Your task to perform on an android device: Open my contact list Image 0: 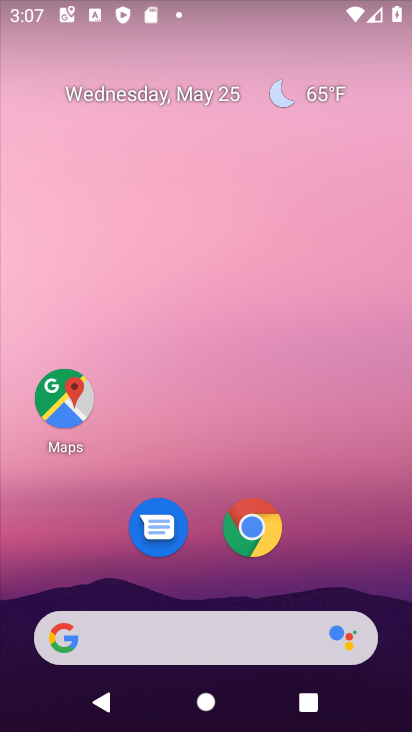
Step 0: drag from (174, 617) to (204, 93)
Your task to perform on an android device: Open my contact list Image 1: 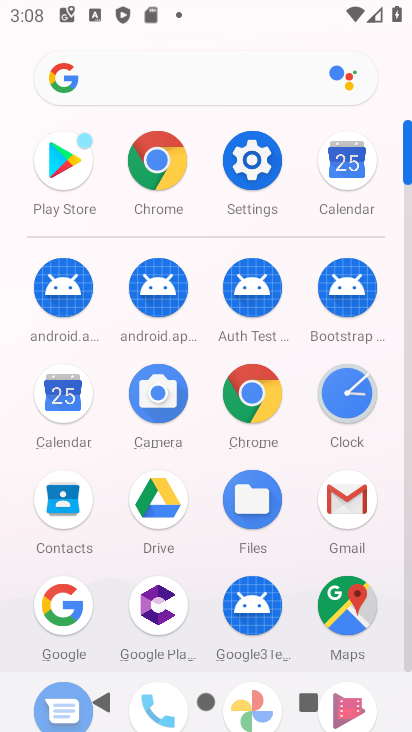
Step 1: click (57, 490)
Your task to perform on an android device: Open my contact list Image 2: 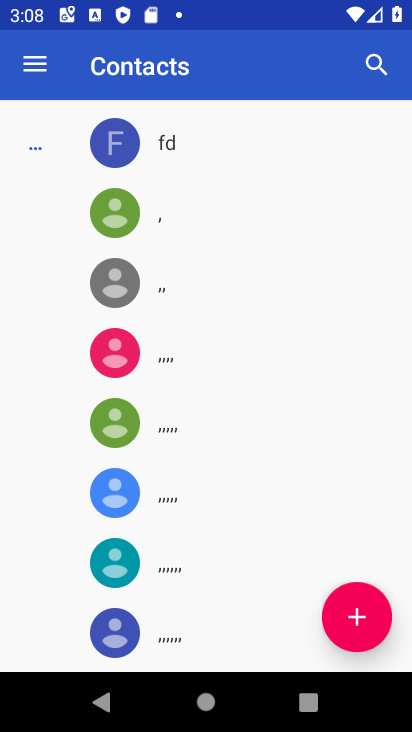
Step 2: click (387, 613)
Your task to perform on an android device: Open my contact list Image 3: 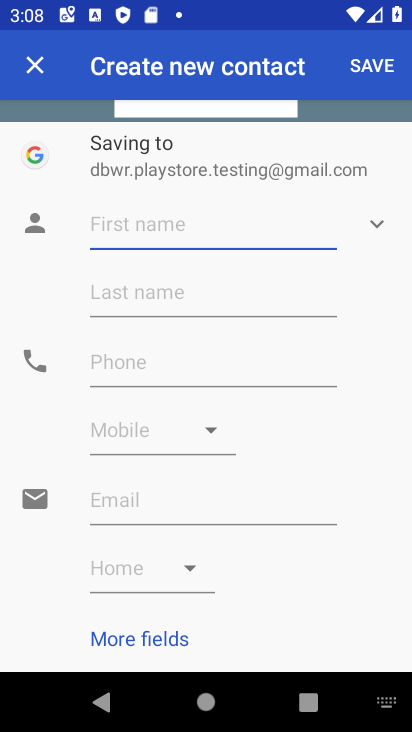
Step 3: click (265, 238)
Your task to perform on an android device: Open my contact list Image 4: 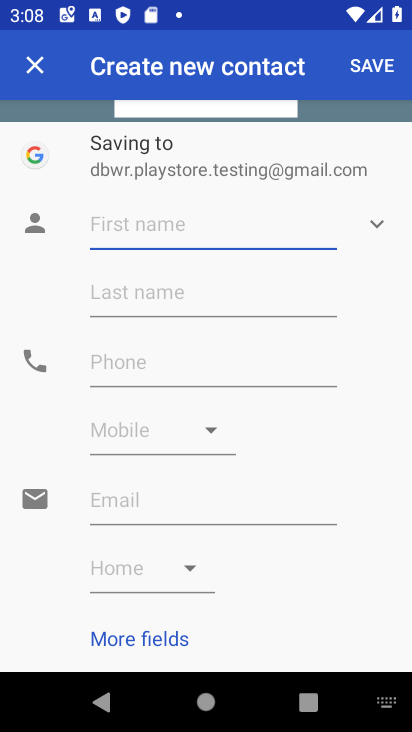
Step 4: type "jsskjhhkj"
Your task to perform on an android device: Open my contact list Image 5: 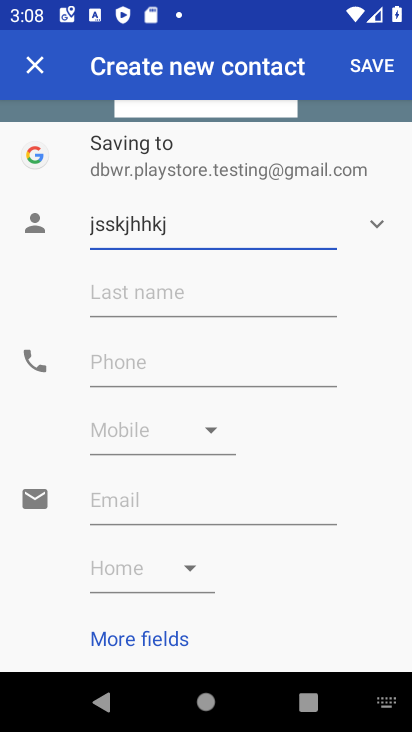
Step 5: click (192, 364)
Your task to perform on an android device: Open my contact list Image 6: 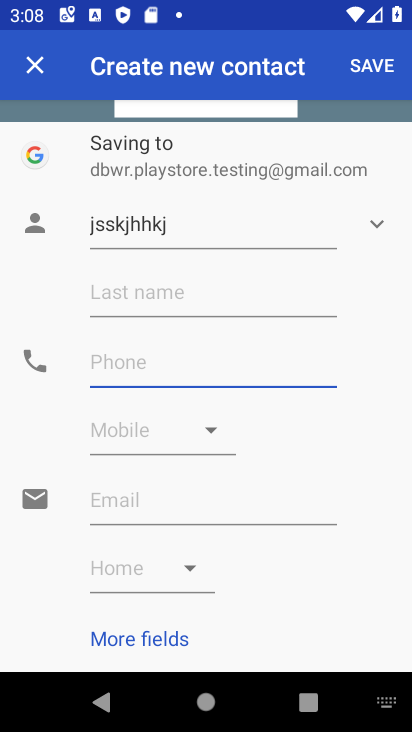
Step 6: type "98977667888"
Your task to perform on an android device: Open my contact list Image 7: 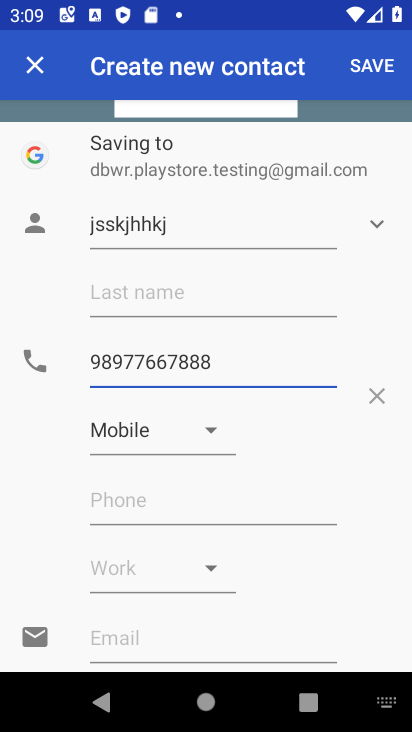
Step 7: click (383, 71)
Your task to perform on an android device: Open my contact list Image 8: 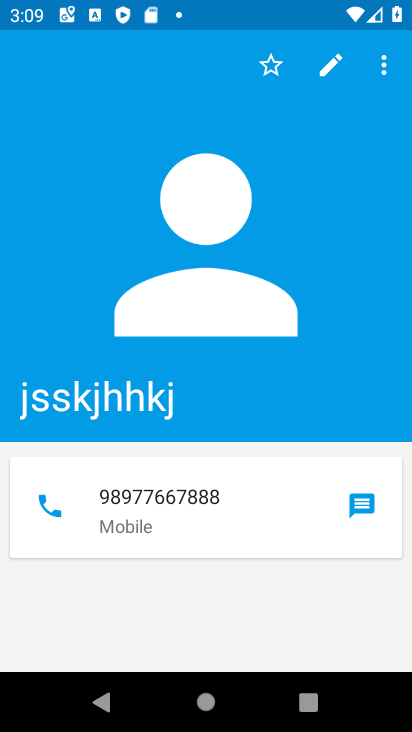
Step 8: task complete